Your task to perform on an android device: What's the weather today? Image 0: 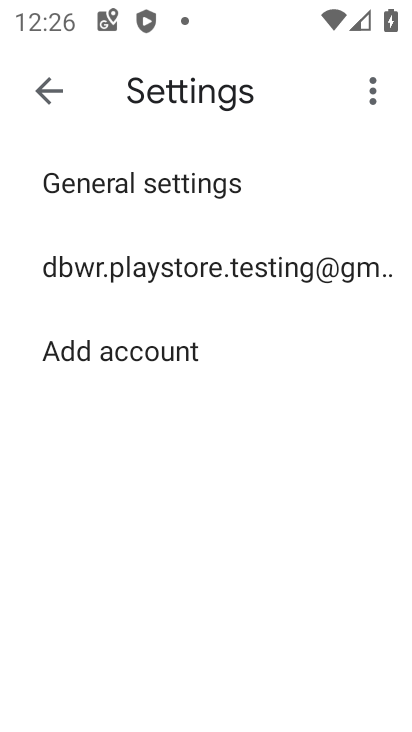
Step 0: press home button
Your task to perform on an android device: What's the weather today? Image 1: 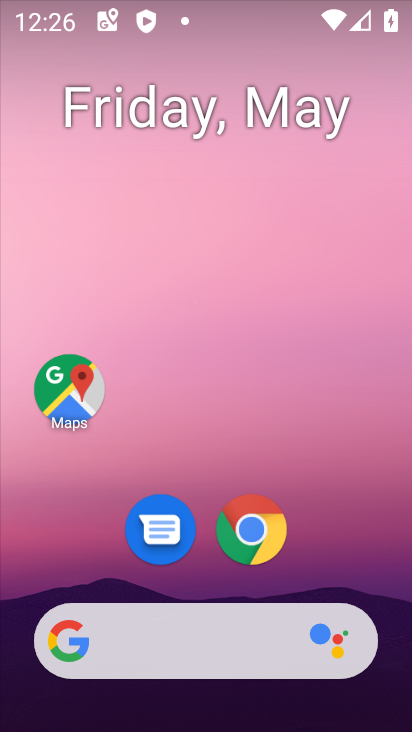
Step 1: click (268, 542)
Your task to perform on an android device: What's the weather today? Image 2: 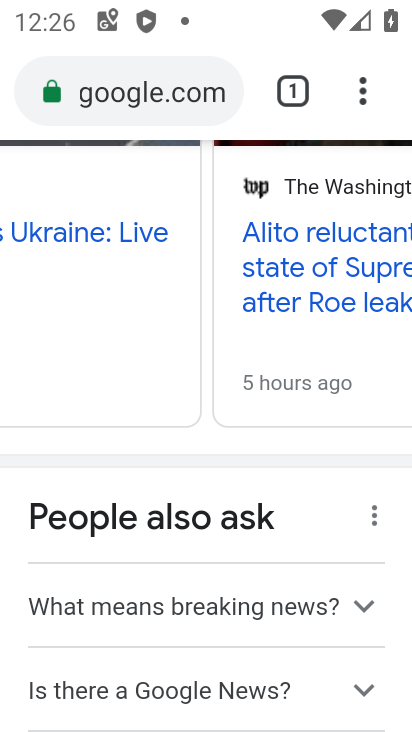
Step 2: click (285, 104)
Your task to perform on an android device: What's the weather today? Image 3: 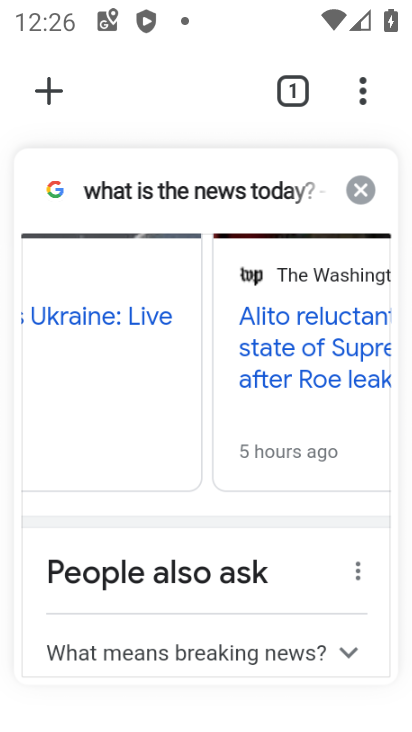
Step 3: click (45, 97)
Your task to perform on an android device: What's the weather today? Image 4: 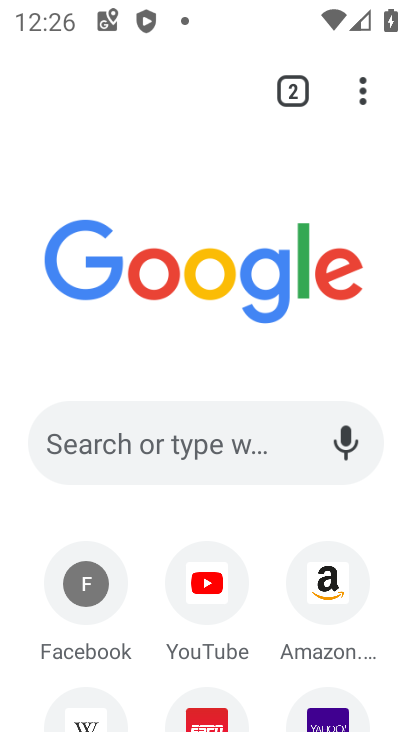
Step 4: click (147, 438)
Your task to perform on an android device: What's the weather today? Image 5: 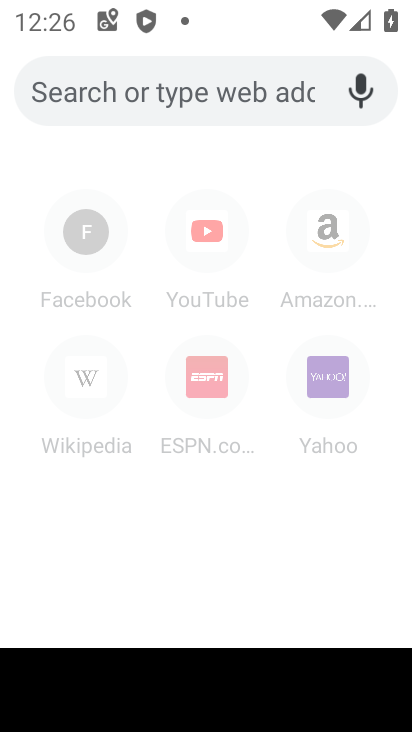
Step 5: type "what's the weather today?"
Your task to perform on an android device: What's the weather today? Image 6: 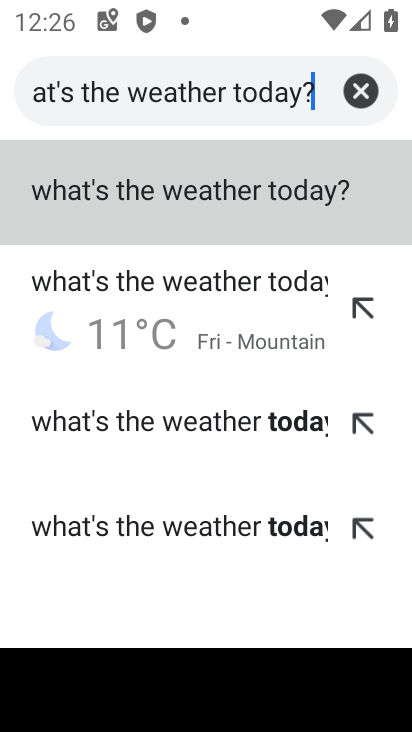
Step 6: click (207, 218)
Your task to perform on an android device: What's the weather today? Image 7: 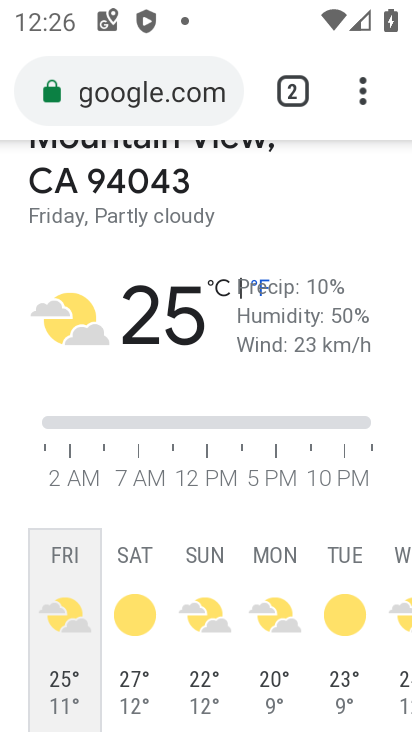
Step 7: task complete